Your task to perform on an android device: Show me recent news Image 0: 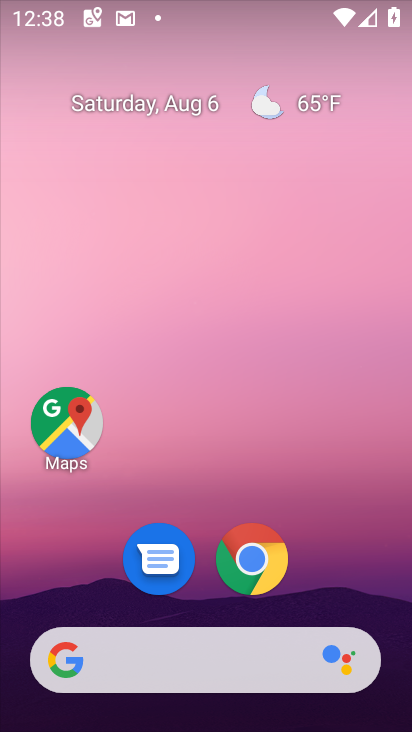
Step 0: click (186, 655)
Your task to perform on an android device: Show me recent news Image 1: 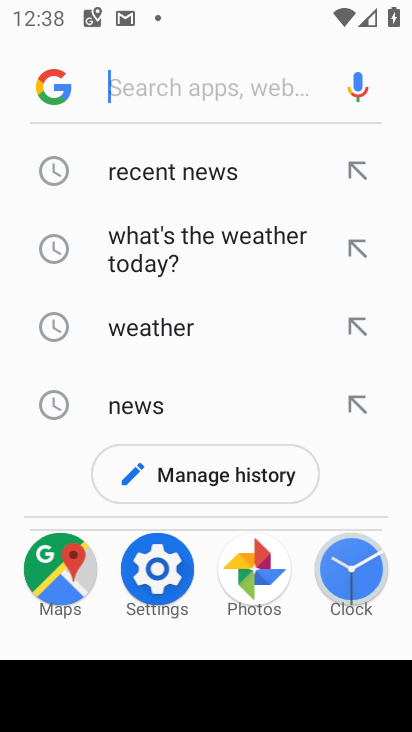
Step 1: click (145, 179)
Your task to perform on an android device: Show me recent news Image 2: 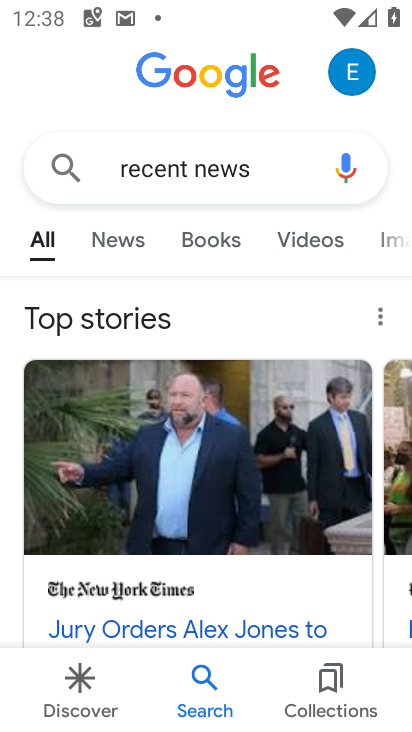
Step 2: task complete